Your task to perform on an android device: change notification settings in the gmail app Image 0: 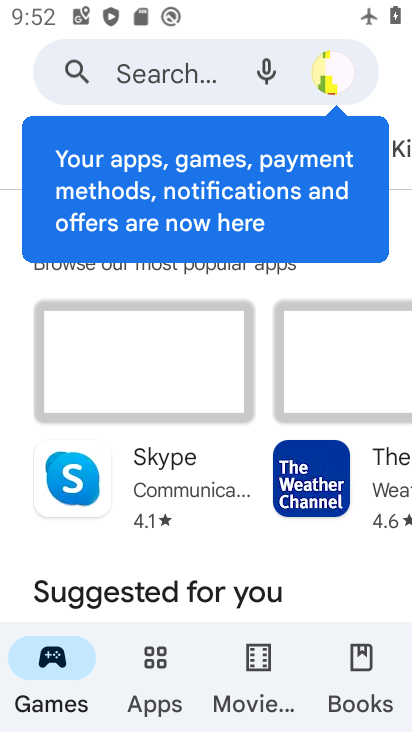
Step 0: press home button
Your task to perform on an android device: change notification settings in the gmail app Image 1: 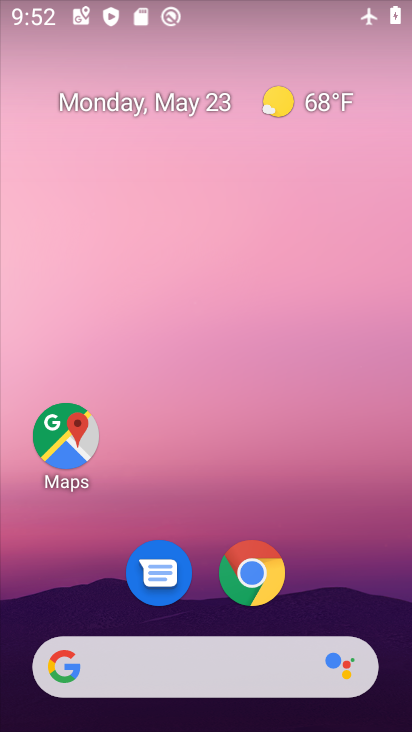
Step 1: drag from (211, 635) to (250, 217)
Your task to perform on an android device: change notification settings in the gmail app Image 2: 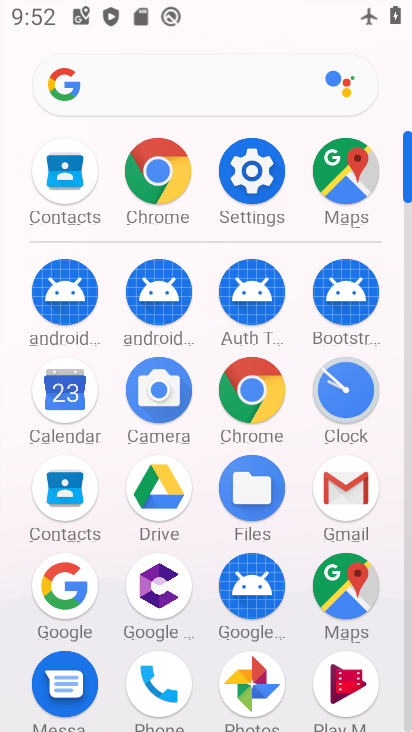
Step 2: click (365, 497)
Your task to perform on an android device: change notification settings in the gmail app Image 3: 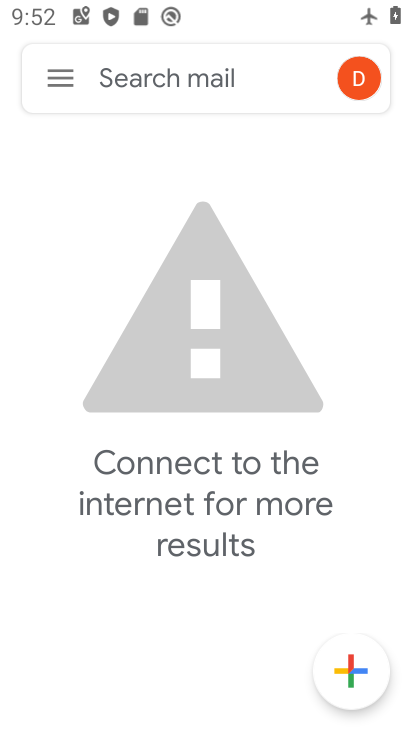
Step 3: click (76, 83)
Your task to perform on an android device: change notification settings in the gmail app Image 4: 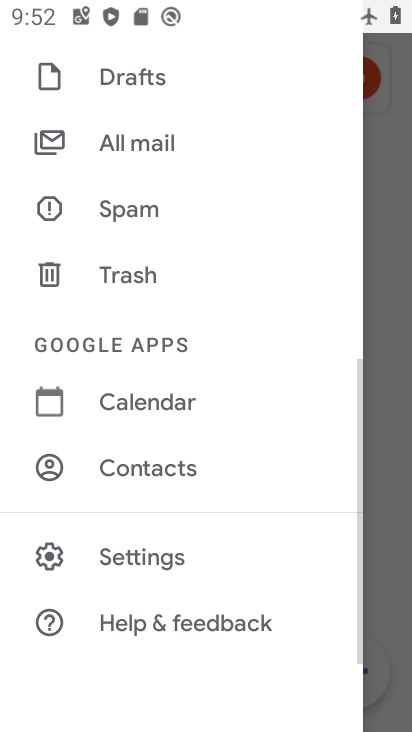
Step 4: click (127, 552)
Your task to perform on an android device: change notification settings in the gmail app Image 5: 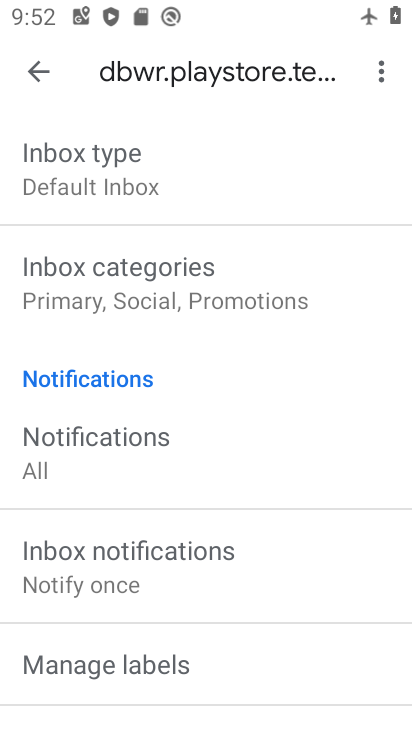
Step 5: click (35, 66)
Your task to perform on an android device: change notification settings in the gmail app Image 6: 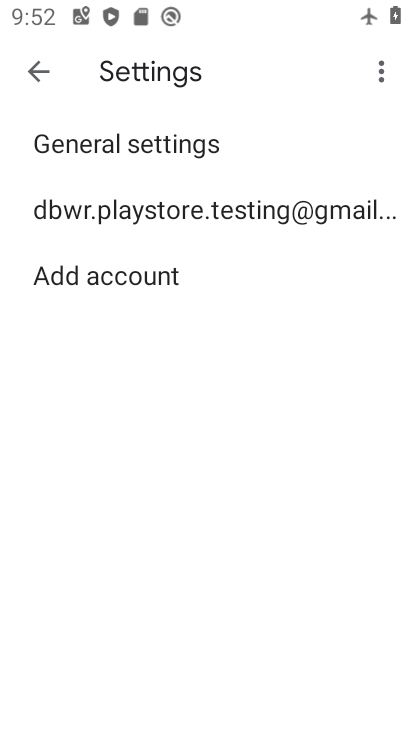
Step 6: click (147, 146)
Your task to perform on an android device: change notification settings in the gmail app Image 7: 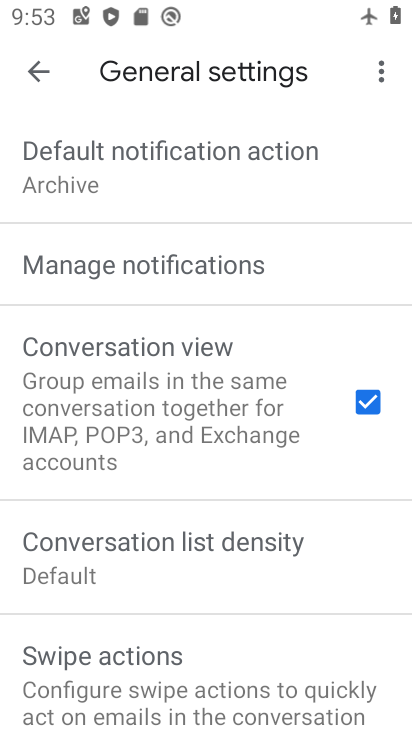
Step 7: click (183, 265)
Your task to perform on an android device: change notification settings in the gmail app Image 8: 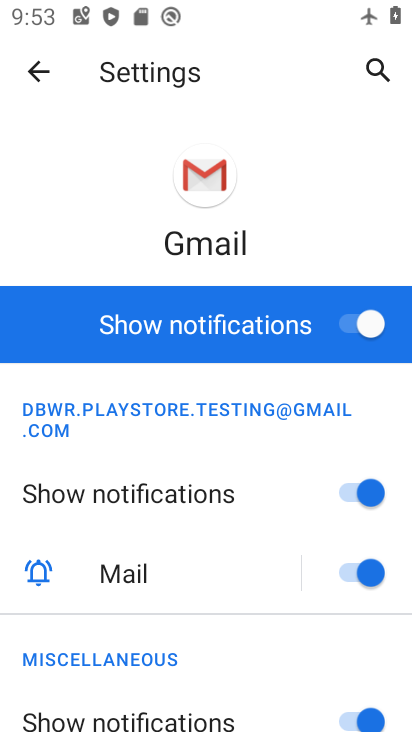
Step 8: click (344, 328)
Your task to perform on an android device: change notification settings in the gmail app Image 9: 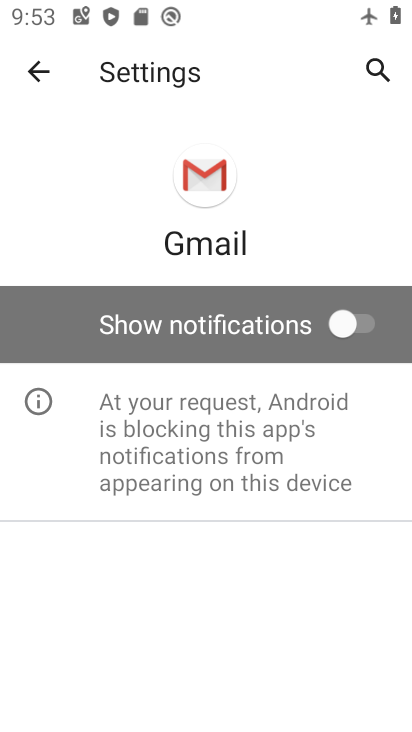
Step 9: task complete